Your task to perform on an android device: turn on translation in the chrome app Image 0: 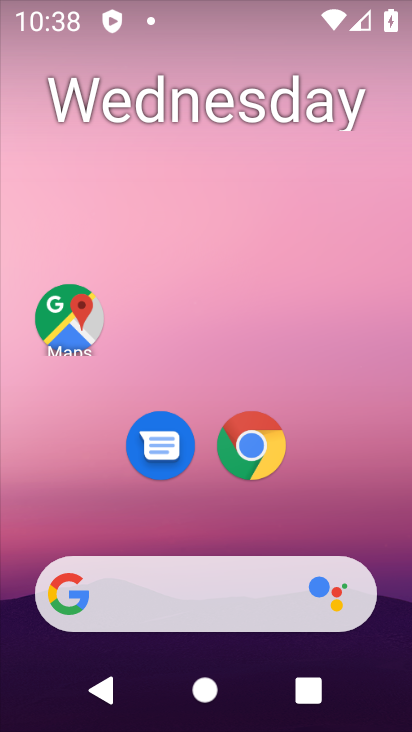
Step 0: click (235, 454)
Your task to perform on an android device: turn on translation in the chrome app Image 1: 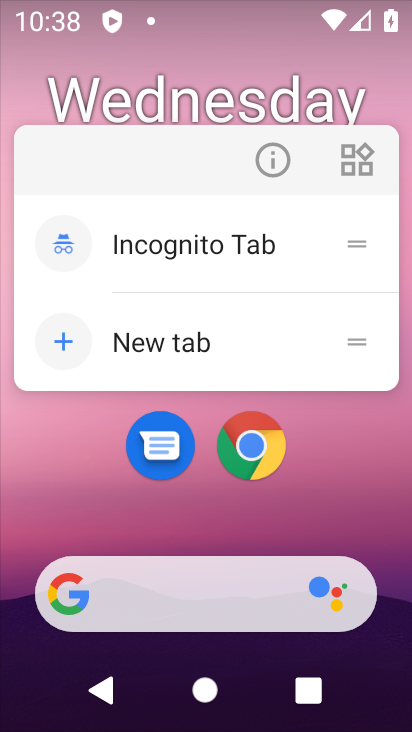
Step 1: click (242, 457)
Your task to perform on an android device: turn on translation in the chrome app Image 2: 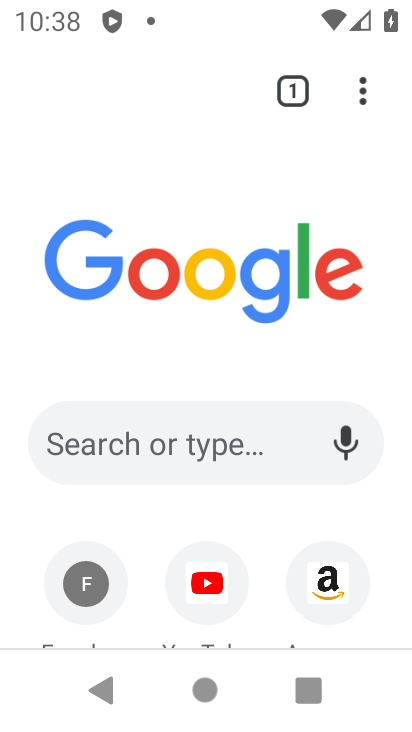
Step 2: drag from (369, 98) to (243, 481)
Your task to perform on an android device: turn on translation in the chrome app Image 3: 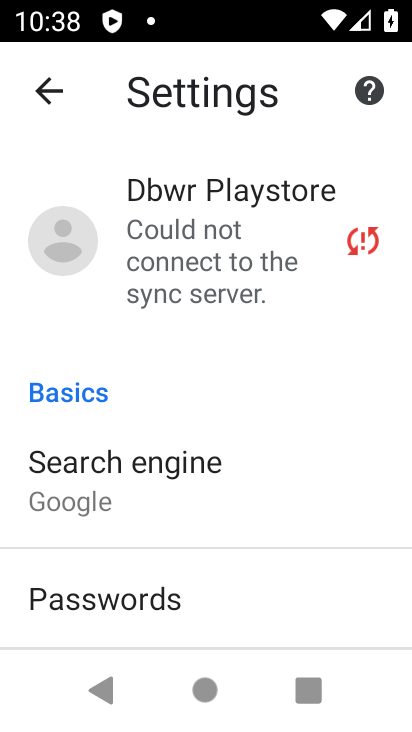
Step 3: drag from (234, 572) to (252, 254)
Your task to perform on an android device: turn on translation in the chrome app Image 4: 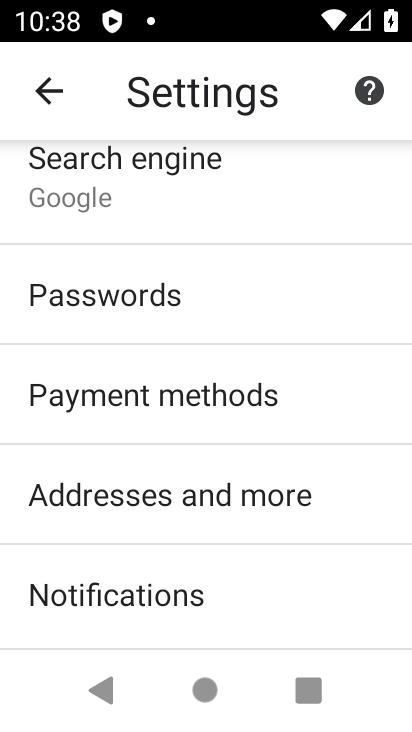
Step 4: drag from (240, 570) to (258, 218)
Your task to perform on an android device: turn on translation in the chrome app Image 5: 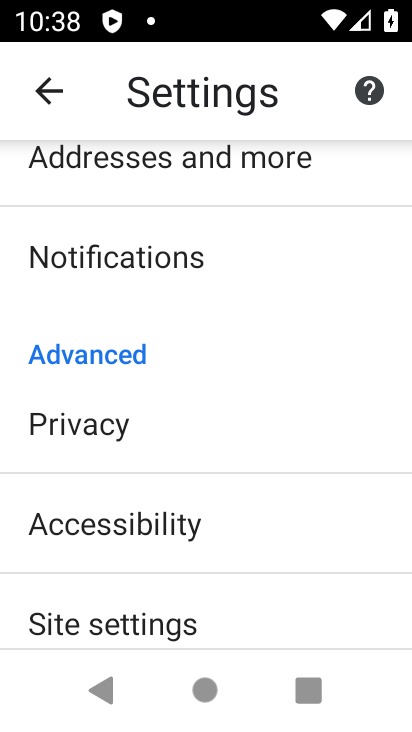
Step 5: drag from (231, 588) to (265, 372)
Your task to perform on an android device: turn on translation in the chrome app Image 6: 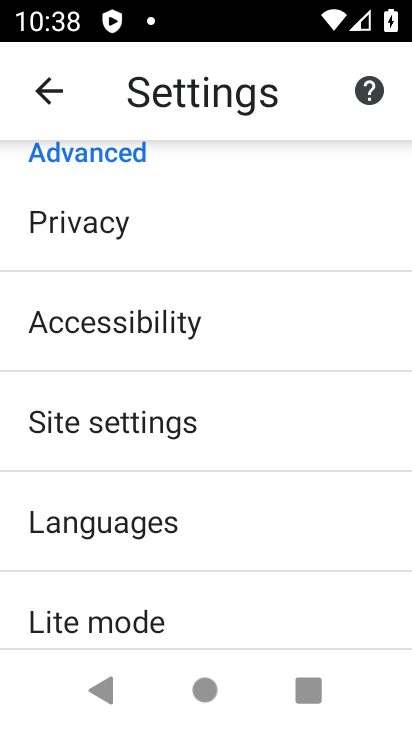
Step 6: click (200, 538)
Your task to perform on an android device: turn on translation in the chrome app Image 7: 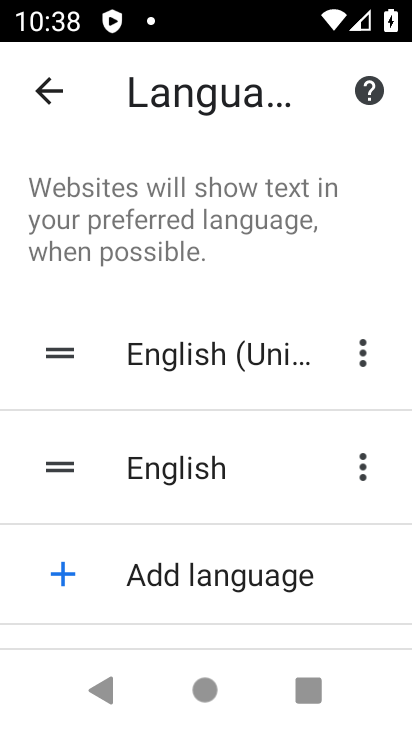
Step 7: task complete